Your task to perform on an android device: Open Amazon Image 0: 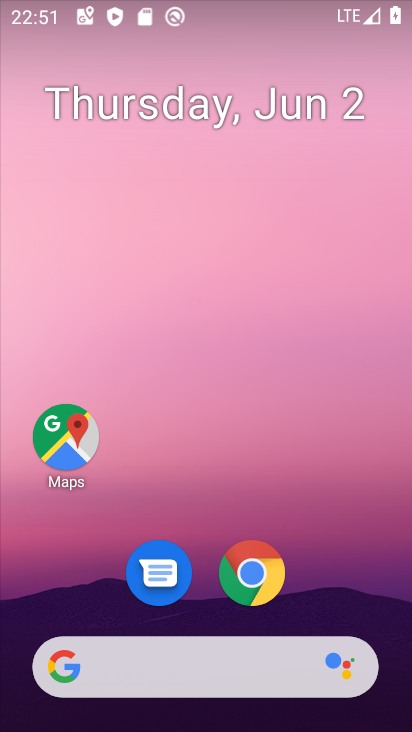
Step 0: click (263, 571)
Your task to perform on an android device: Open Amazon Image 1: 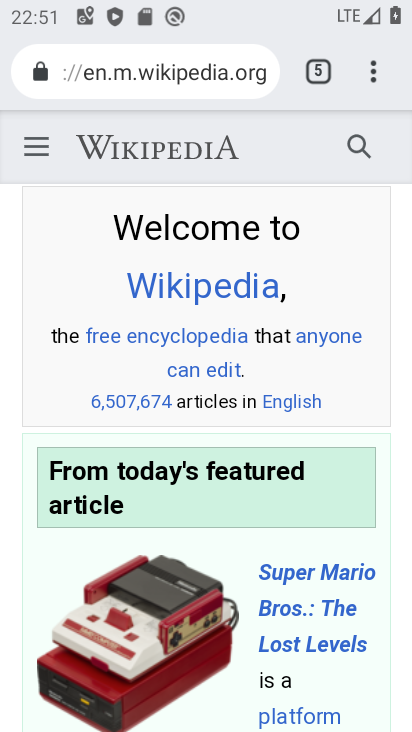
Step 1: click (319, 66)
Your task to perform on an android device: Open Amazon Image 2: 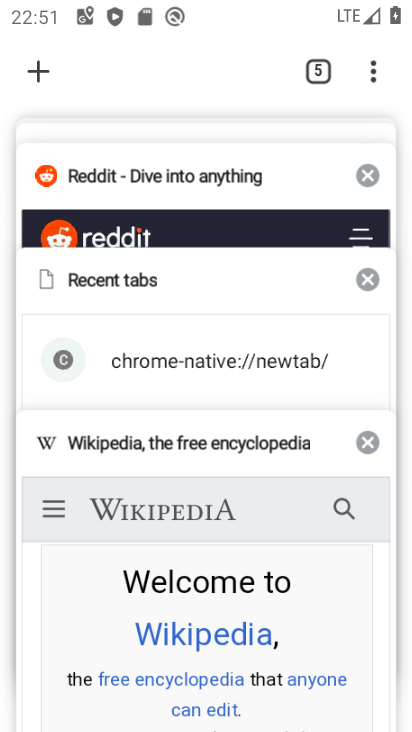
Step 2: drag from (140, 207) to (122, 409)
Your task to perform on an android device: Open Amazon Image 3: 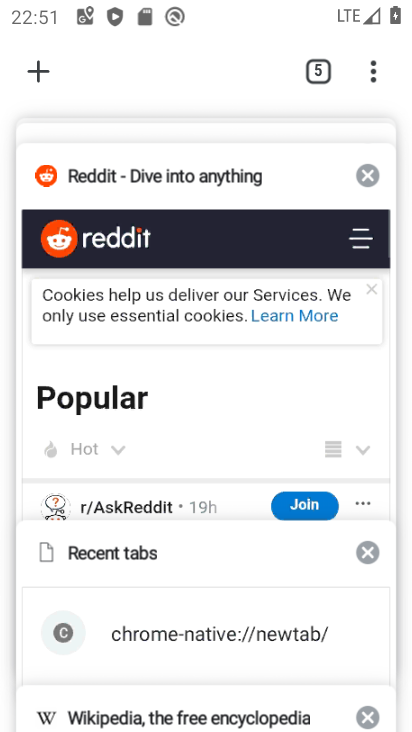
Step 3: drag from (163, 232) to (159, 540)
Your task to perform on an android device: Open Amazon Image 4: 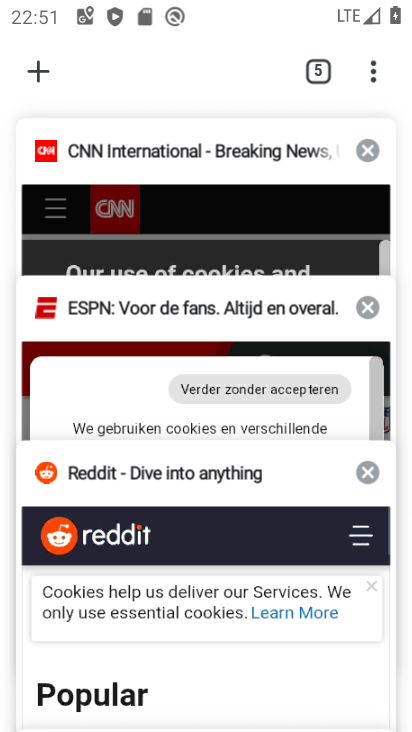
Step 4: drag from (262, 167) to (183, 589)
Your task to perform on an android device: Open Amazon Image 5: 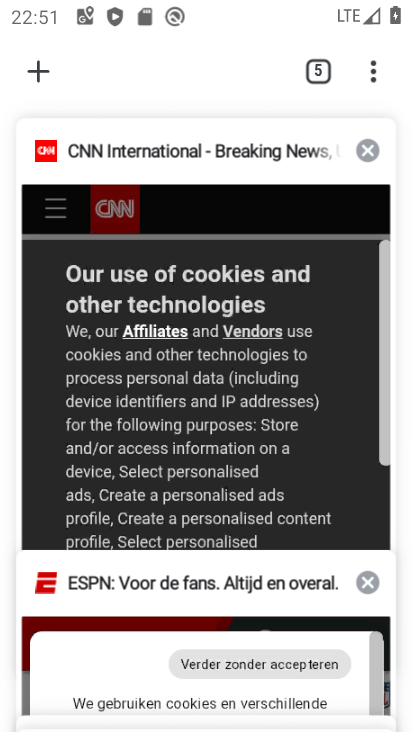
Step 5: drag from (204, 240) to (111, 688)
Your task to perform on an android device: Open Amazon Image 6: 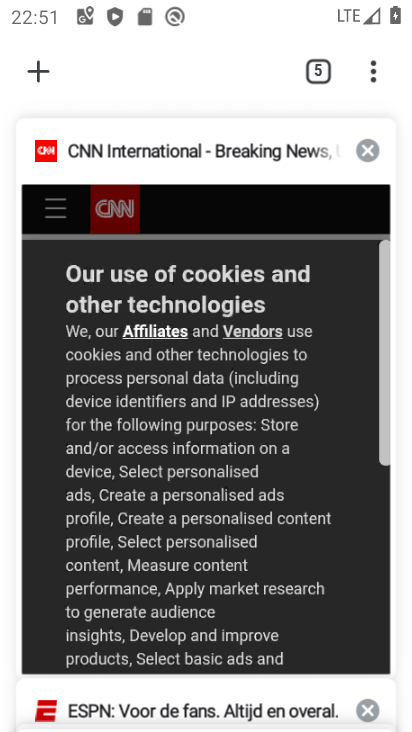
Step 6: drag from (318, 252) to (159, 719)
Your task to perform on an android device: Open Amazon Image 7: 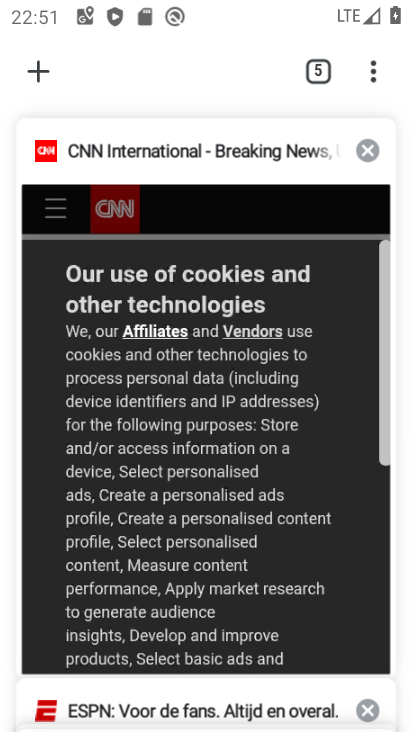
Step 7: click (26, 67)
Your task to perform on an android device: Open Amazon Image 8: 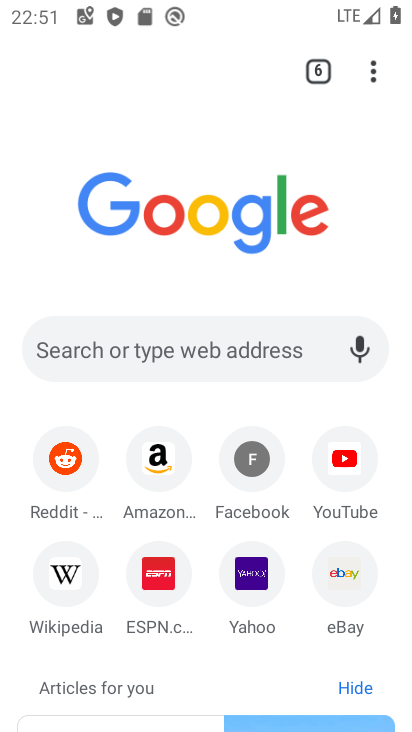
Step 8: click (151, 454)
Your task to perform on an android device: Open Amazon Image 9: 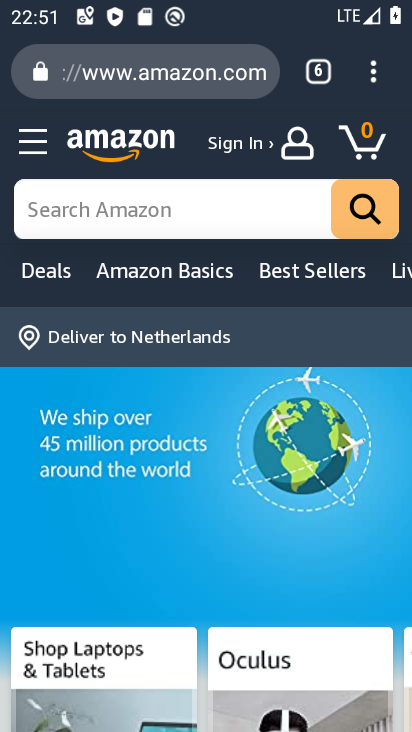
Step 9: task complete